Your task to perform on an android device: Go to location settings Image 0: 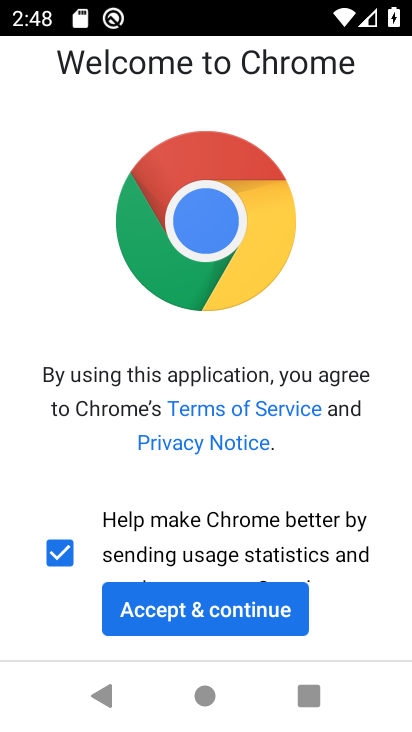
Step 0: click (242, 611)
Your task to perform on an android device: Go to location settings Image 1: 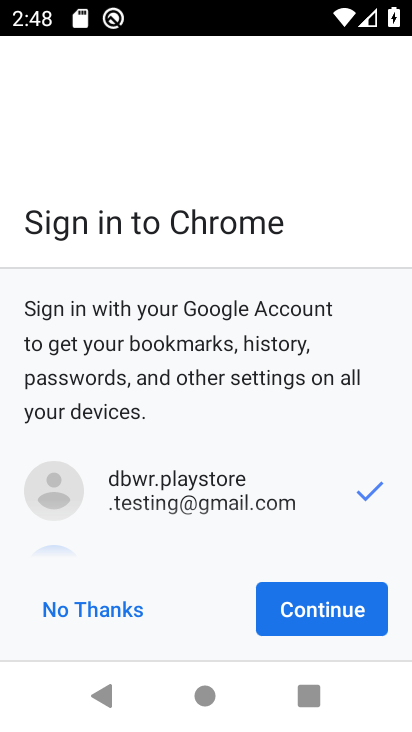
Step 1: click (314, 604)
Your task to perform on an android device: Go to location settings Image 2: 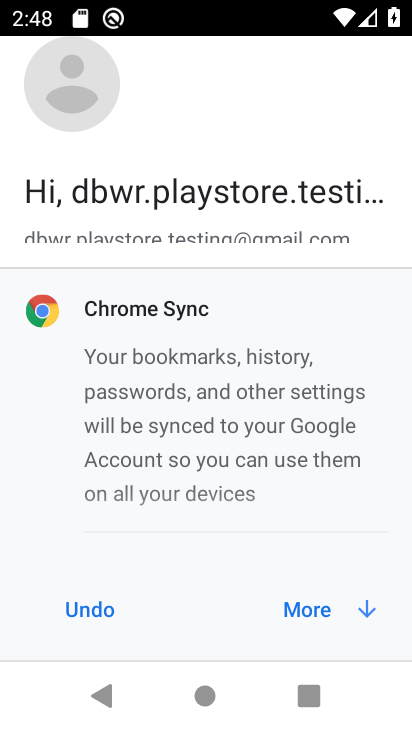
Step 2: click (314, 604)
Your task to perform on an android device: Go to location settings Image 3: 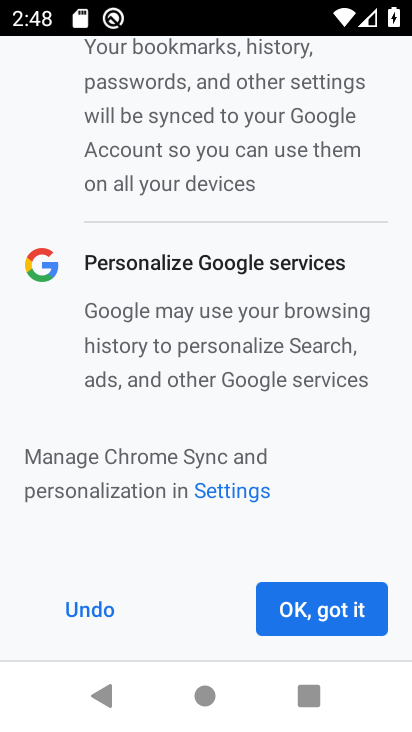
Step 3: click (314, 604)
Your task to perform on an android device: Go to location settings Image 4: 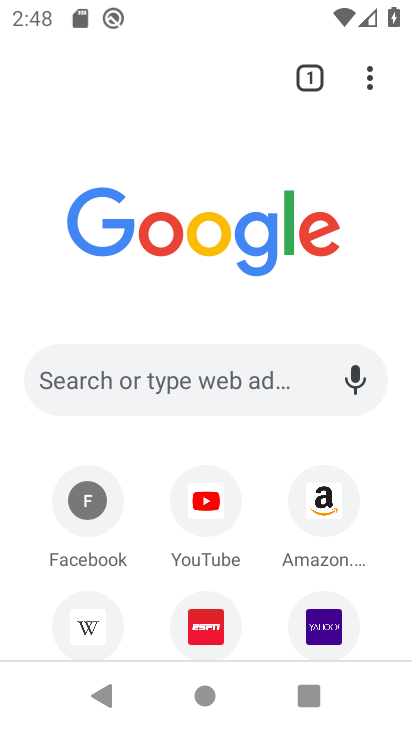
Step 4: click (369, 82)
Your task to perform on an android device: Go to location settings Image 5: 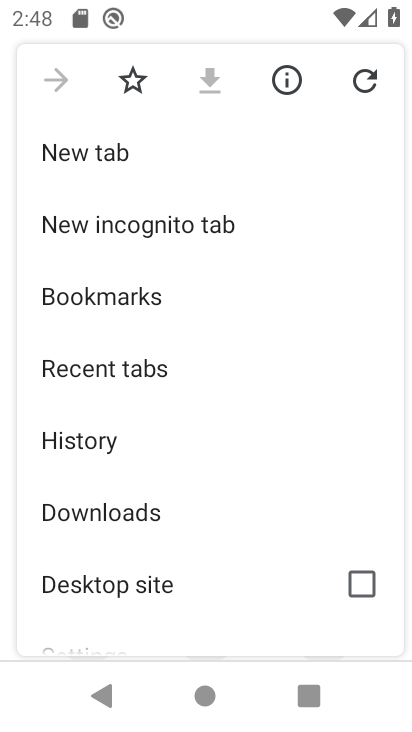
Step 5: drag from (198, 591) to (304, 30)
Your task to perform on an android device: Go to location settings Image 6: 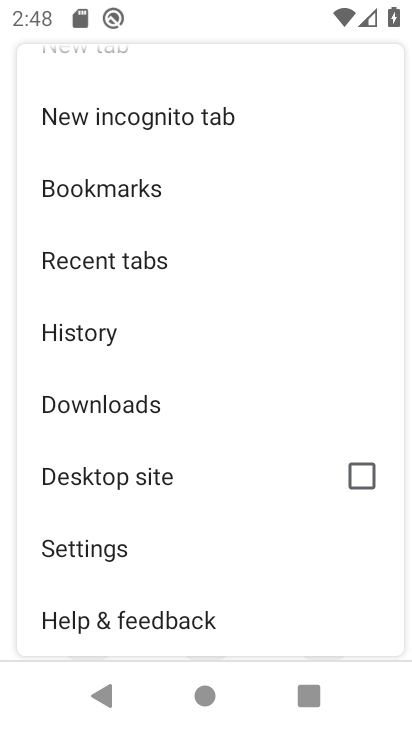
Step 6: click (66, 543)
Your task to perform on an android device: Go to location settings Image 7: 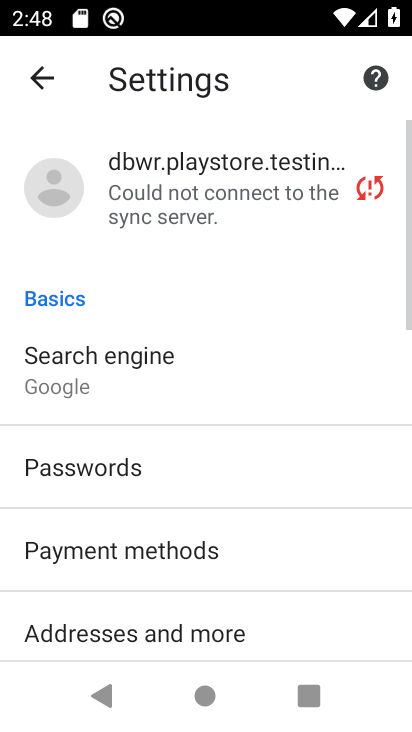
Step 7: drag from (284, 591) to (370, 46)
Your task to perform on an android device: Go to location settings Image 8: 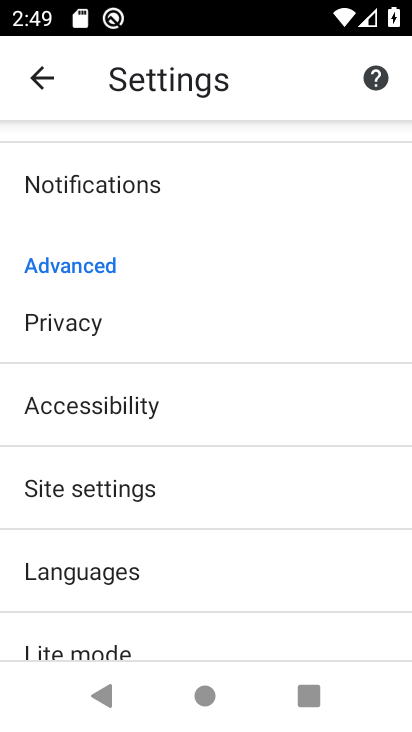
Step 8: drag from (227, 595) to (202, 60)
Your task to perform on an android device: Go to location settings Image 9: 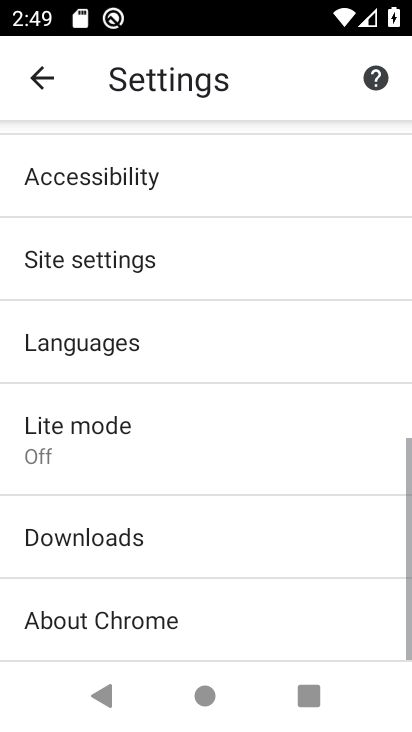
Step 9: click (203, 255)
Your task to perform on an android device: Go to location settings Image 10: 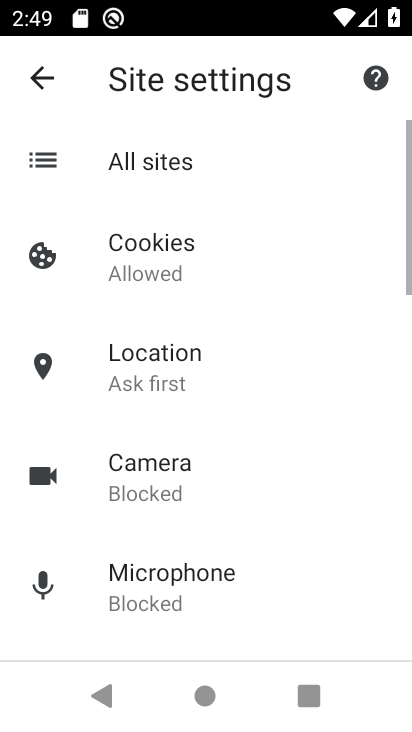
Step 10: click (195, 366)
Your task to perform on an android device: Go to location settings Image 11: 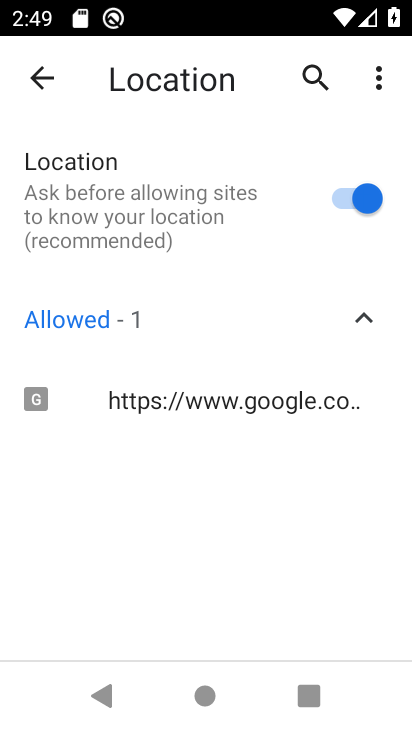
Step 11: task complete